Your task to perform on an android device: turn on translation in the chrome app Image 0: 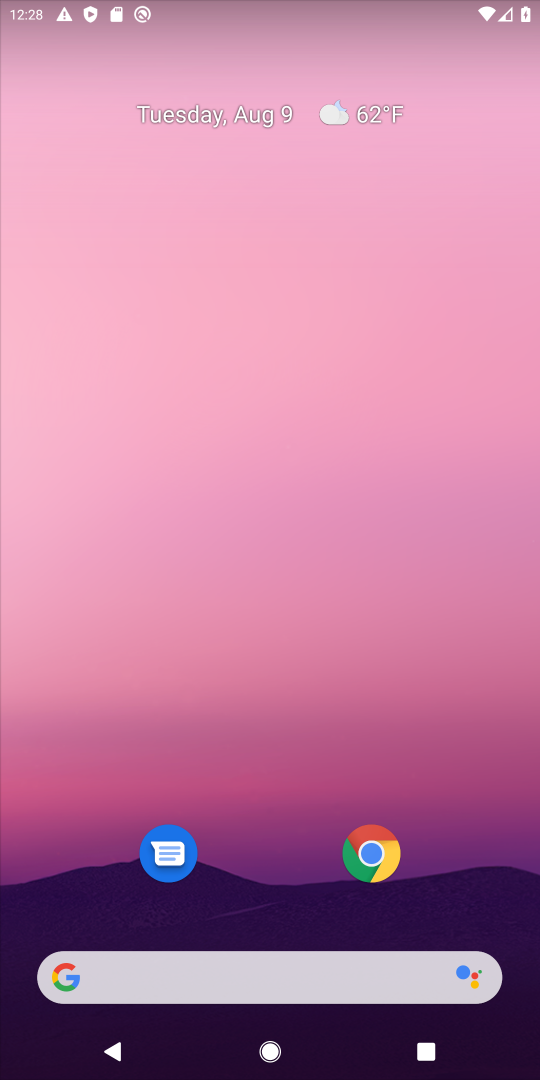
Step 0: press home button
Your task to perform on an android device: turn on translation in the chrome app Image 1: 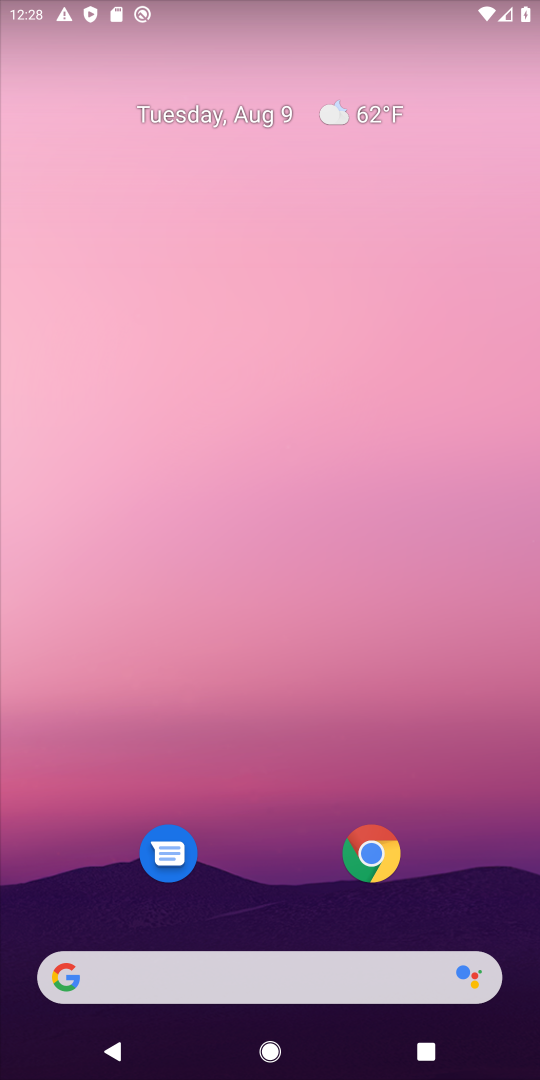
Step 1: click (380, 850)
Your task to perform on an android device: turn on translation in the chrome app Image 2: 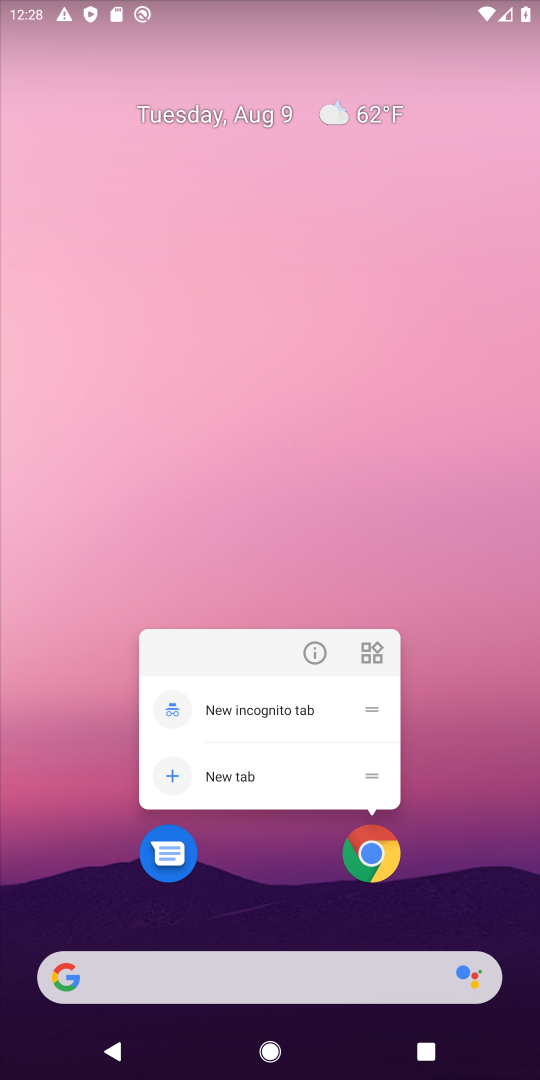
Step 2: click (374, 846)
Your task to perform on an android device: turn on translation in the chrome app Image 3: 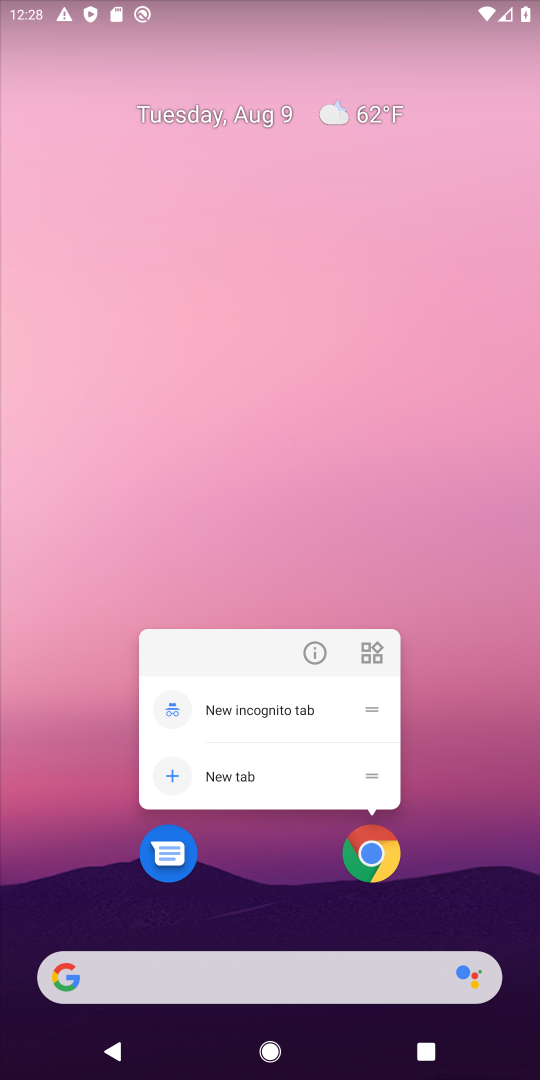
Step 3: click (369, 862)
Your task to perform on an android device: turn on translation in the chrome app Image 4: 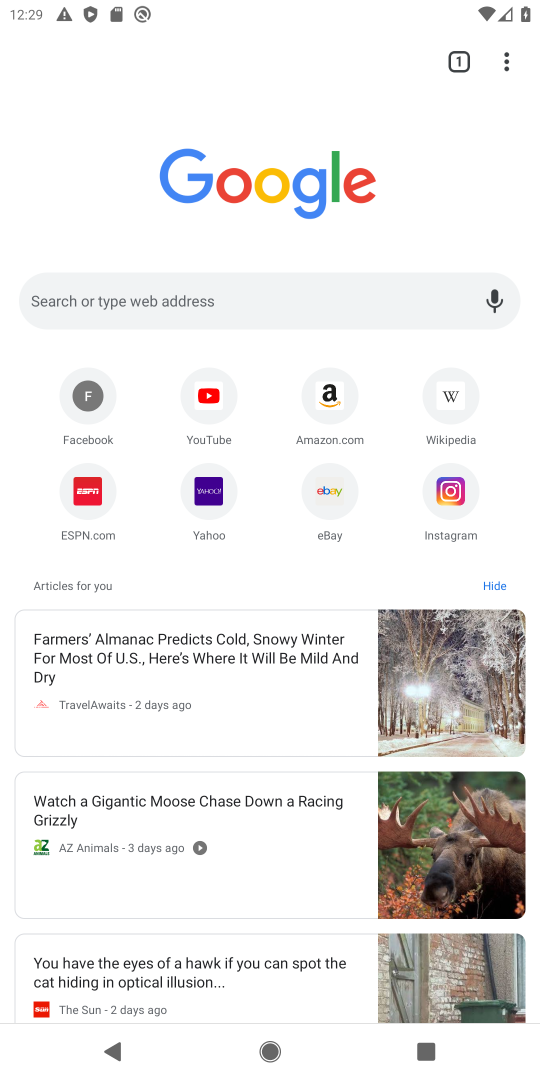
Step 4: click (505, 55)
Your task to perform on an android device: turn on translation in the chrome app Image 5: 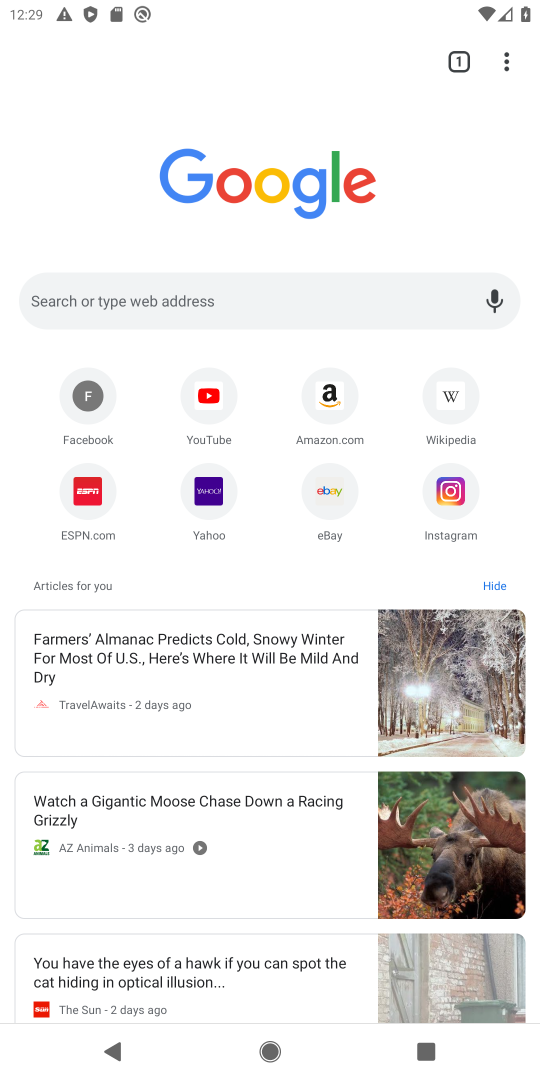
Step 5: drag from (502, 54) to (272, 588)
Your task to perform on an android device: turn on translation in the chrome app Image 6: 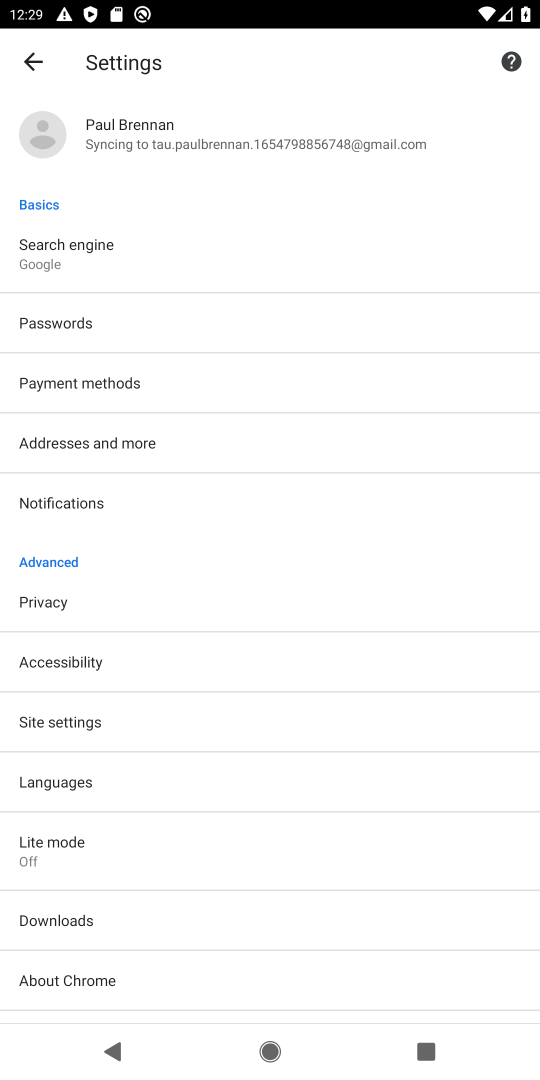
Step 6: drag from (250, 192) to (289, 0)
Your task to perform on an android device: turn on translation in the chrome app Image 7: 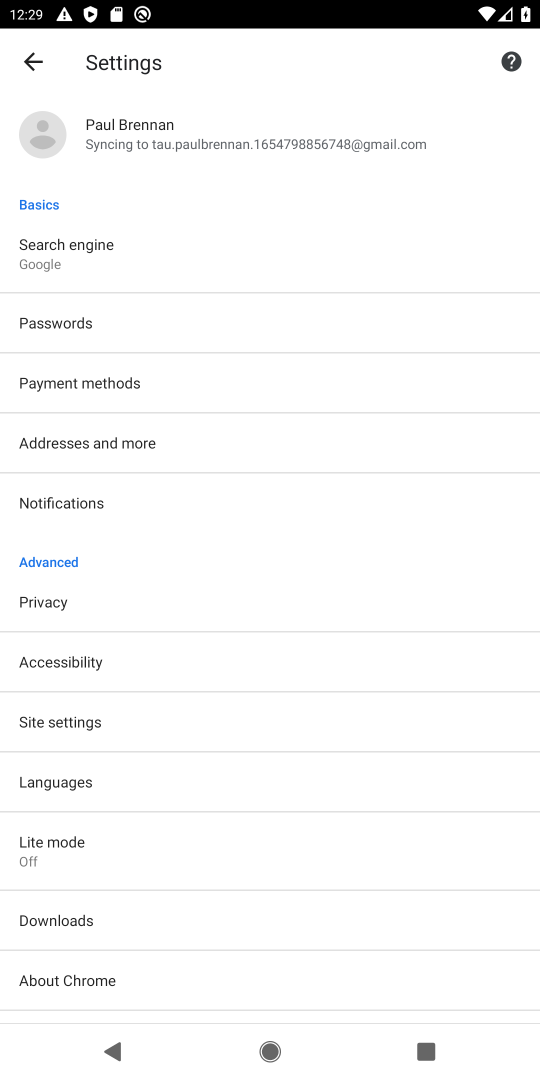
Step 7: click (84, 778)
Your task to perform on an android device: turn on translation in the chrome app Image 8: 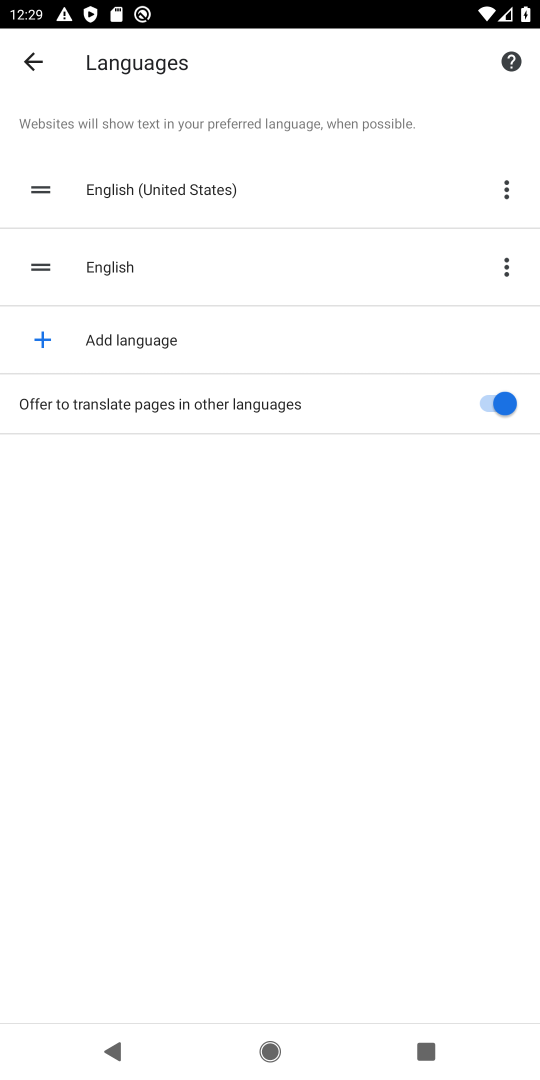
Step 8: task complete